Your task to perform on an android device: Open the phone app and click the voicemail tab. Image 0: 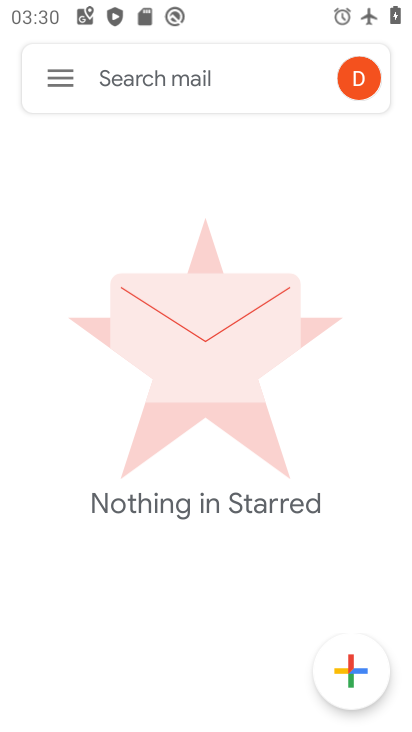
Step 0: press home button
Your task to perform on an android device: Open the phone app and click the voicemail tab. Image 1: 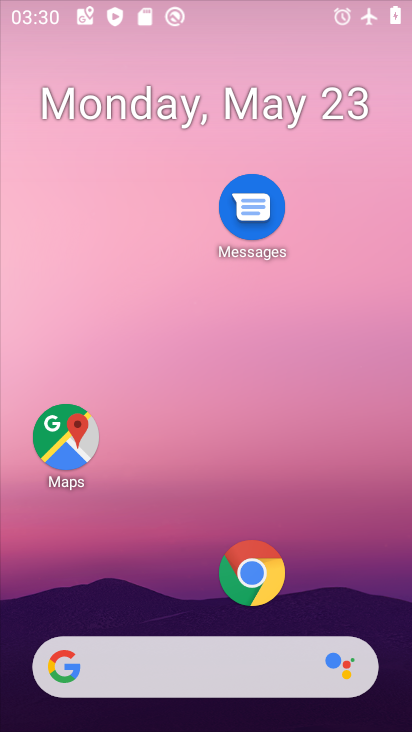
Step 1: drag from (125, 692) to (159, 87)
Your task to perform on an android device: Open the phone app and click the voicemail tab. Image 2: 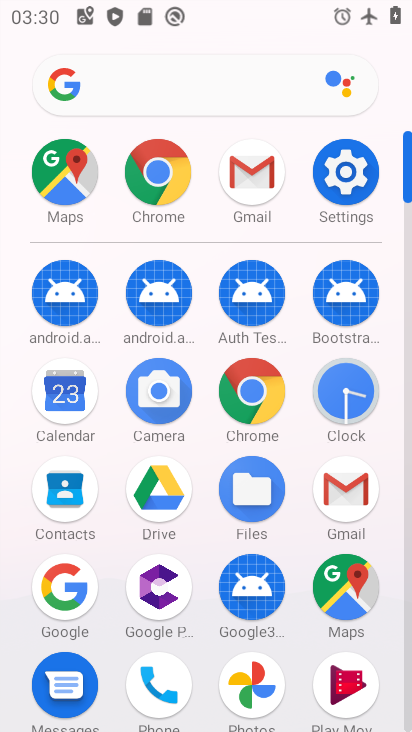
Step 2: click (151, 681)
Your task to perform on an android device: Open the phone app and click the voicemail tab. Image 3: 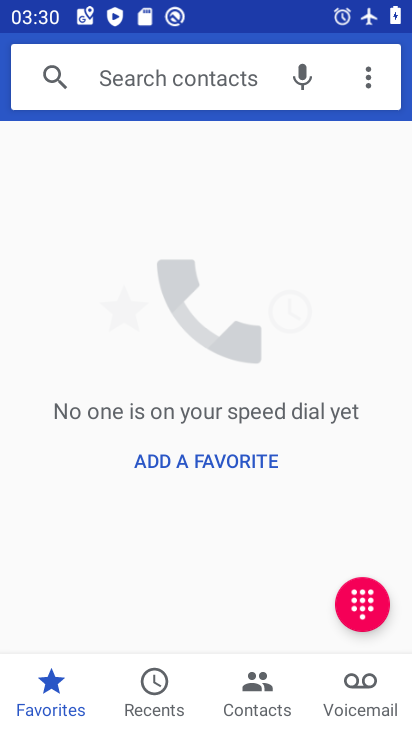
Step 3: click (357, 704)
Your task to perform on an android device: Open the phone app and click the voicemail tab. Image 4: 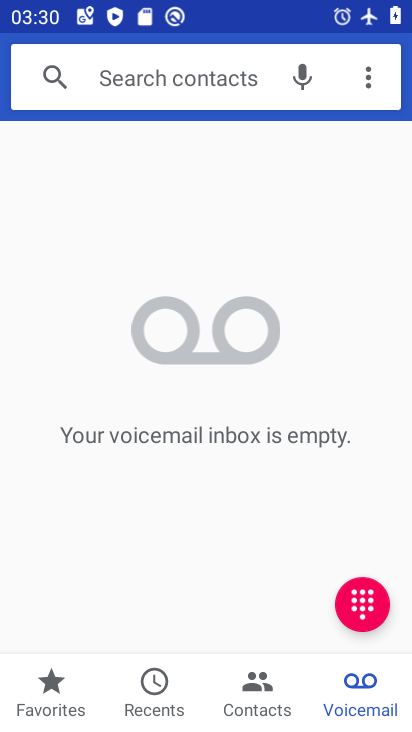
Step 4: task complete